Your task to perform on an android device: Do I have any events tomorrow? Image 0: 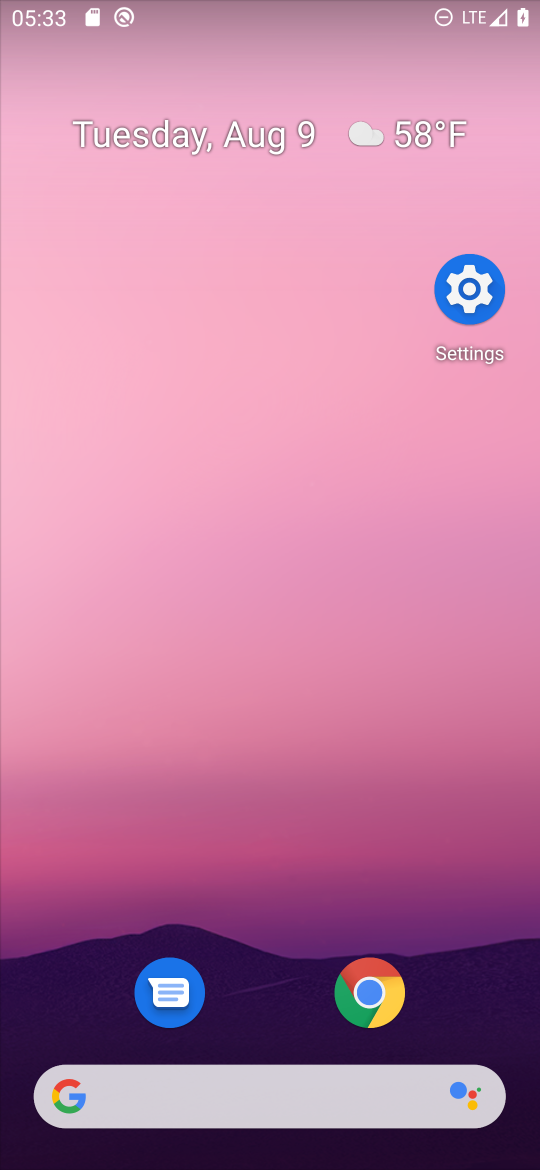
Step 0: drag from (346, 1069) to (503, 108)
Your task to perform on an android device: Do I have any events tomorrow? Image 1: 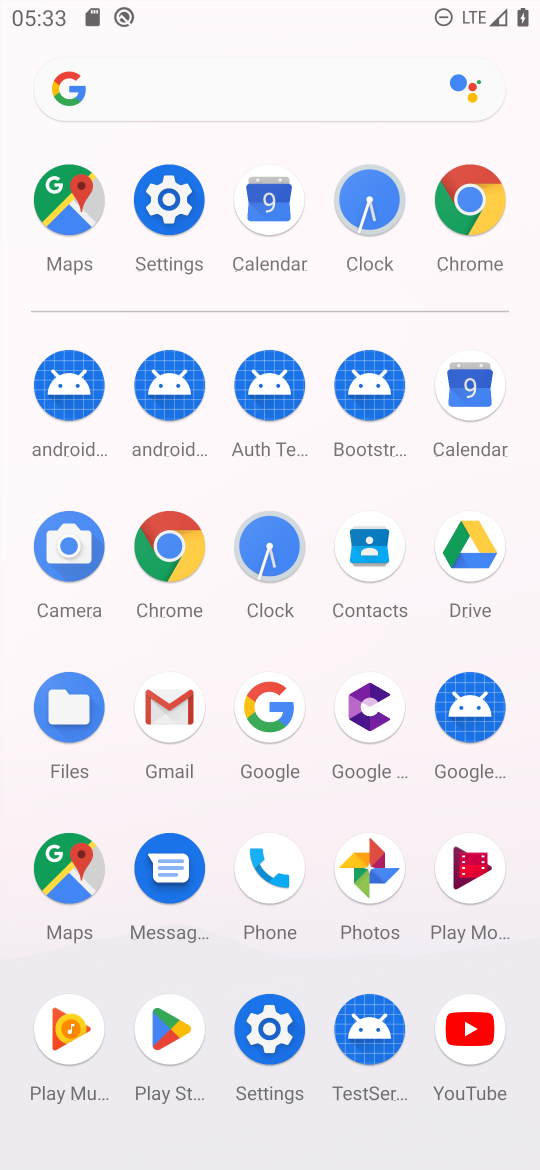
Step 1: click (462, 365)
Your task to perform on an android device: Do I have any events tomorrow? Image 2: 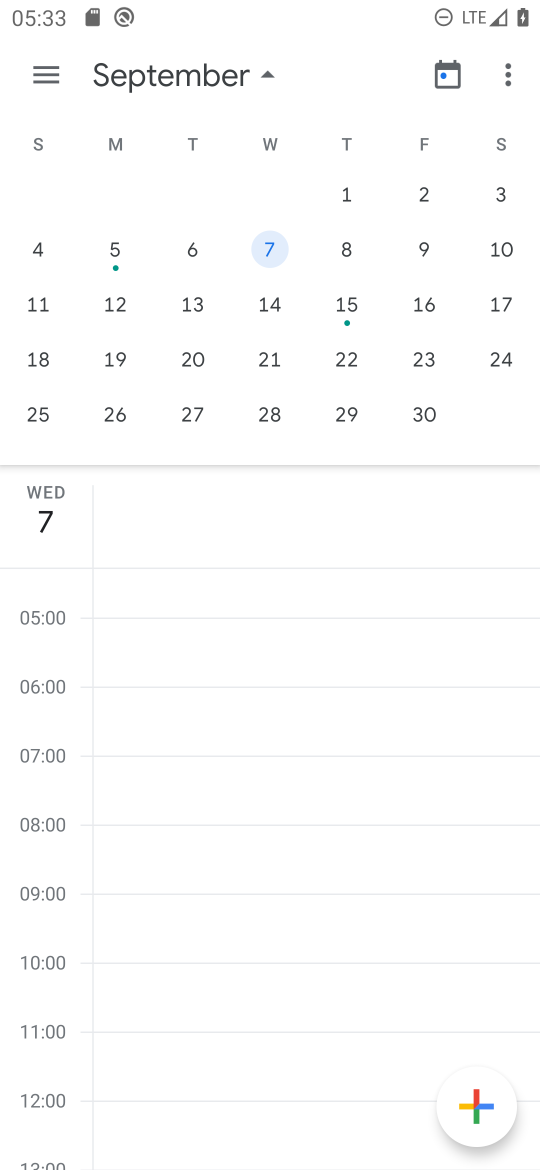
Step 2: drag from (60, 304) to (526, 172)
Your task to perform on an android device: Do I have any events tomorrow? Image 3: 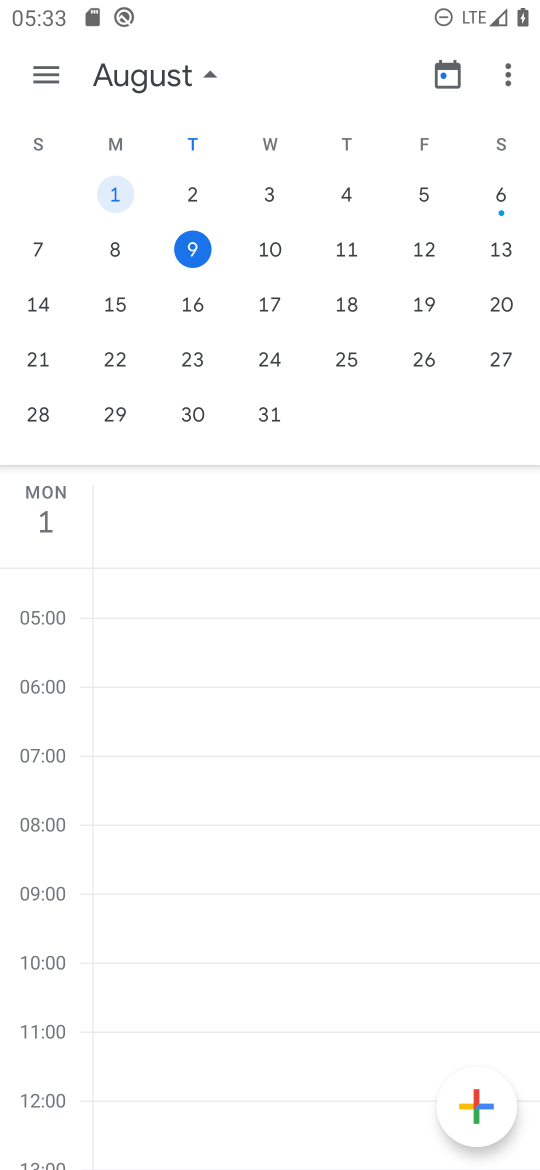
Step 3: click (269, 242)
Your task to perform on an android device: Do I have any events tomorrow? Image 4: 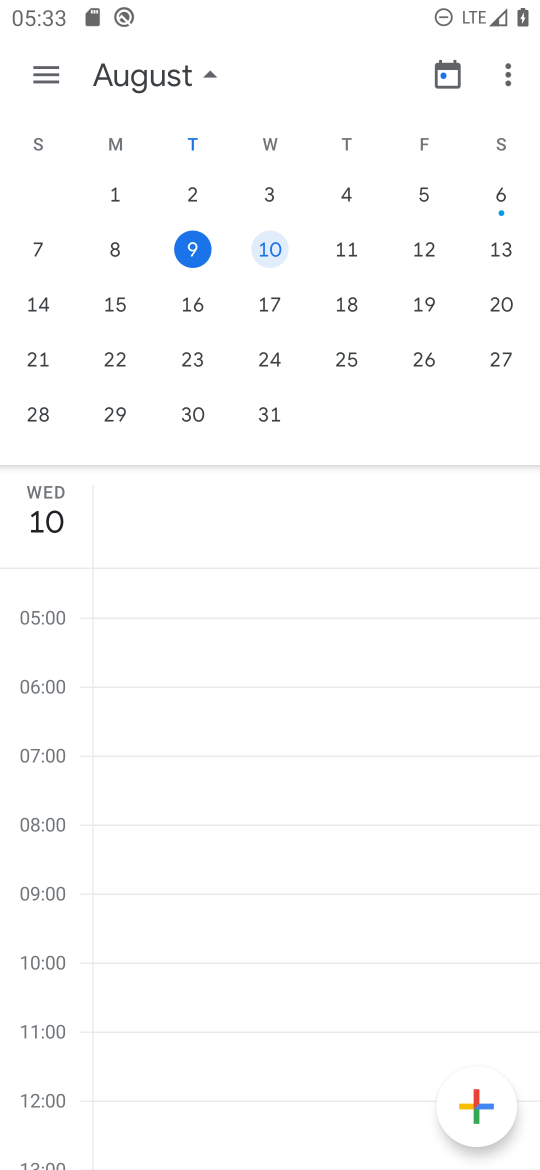
Step 4: task complete